Your task to perform on an android device: open app "Microsoft Excel" Image 0: 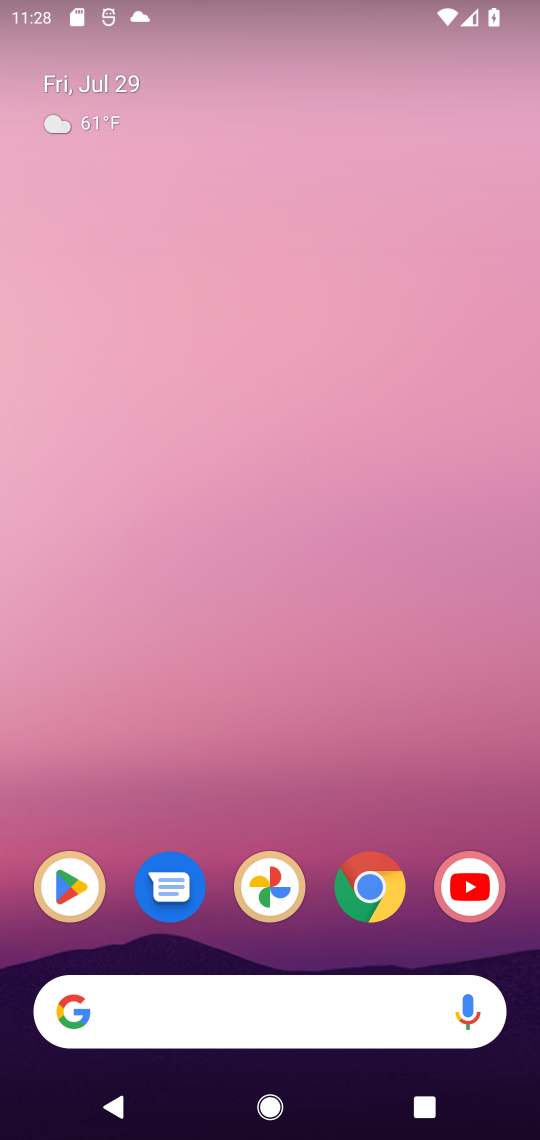
Step 0: press home button
Your task to perform on an android device: open app "Microsoft Excel" Image 1: 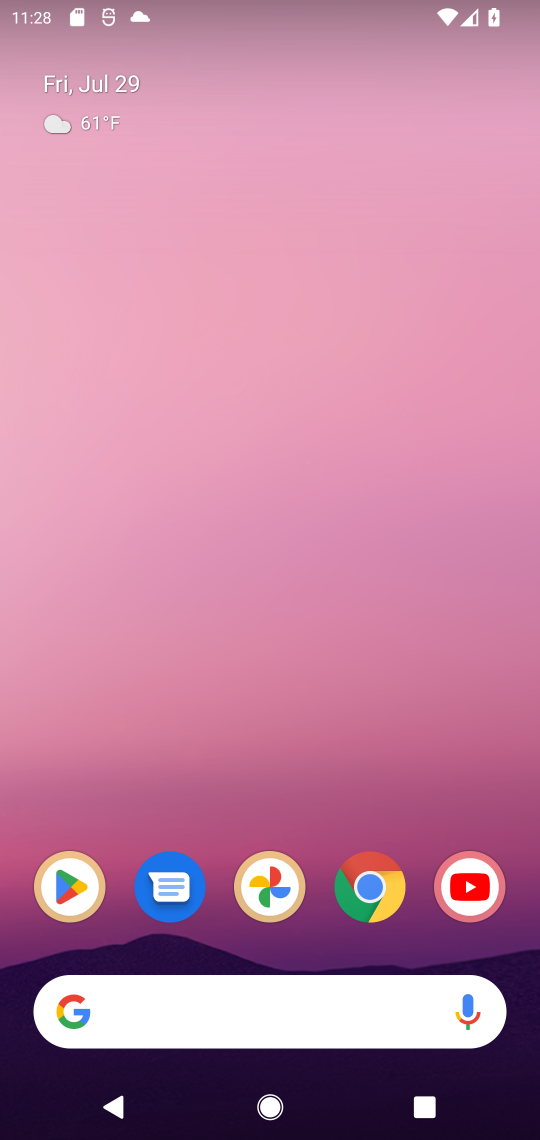
Step 1: drag from (218, 1029) to (297, 98)
Your task to perform on an android device: open app "Microsoft Excel" Image 2: 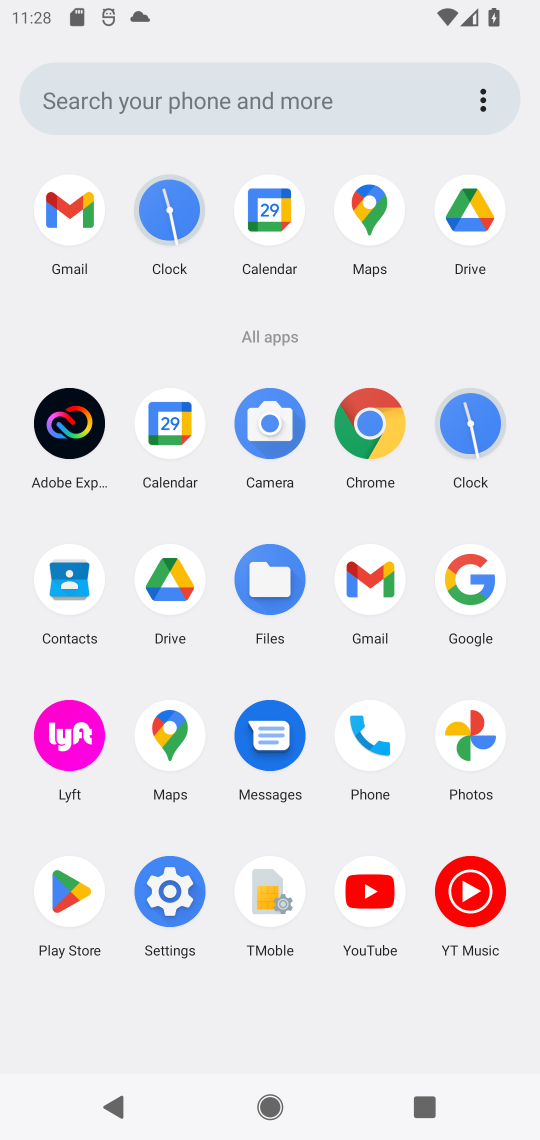
Step 2: click (70, 891)
Your task to perform on an android device: open app "Microsoft Excel" Image 3: 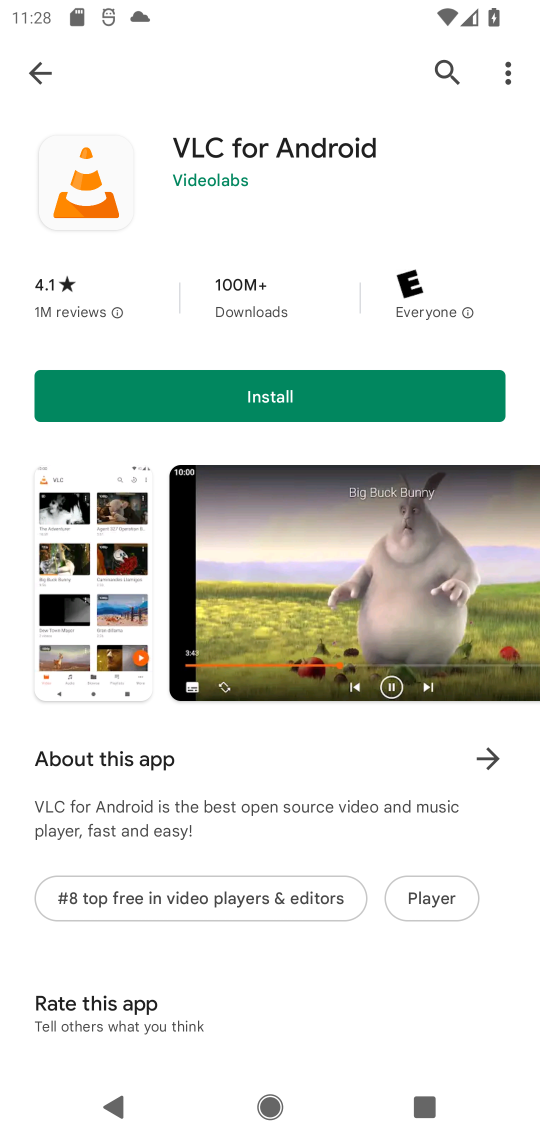
Step 3: click (449, 63)
Your task to perform on an android device: open app "Microsoft Excel" Image 4: 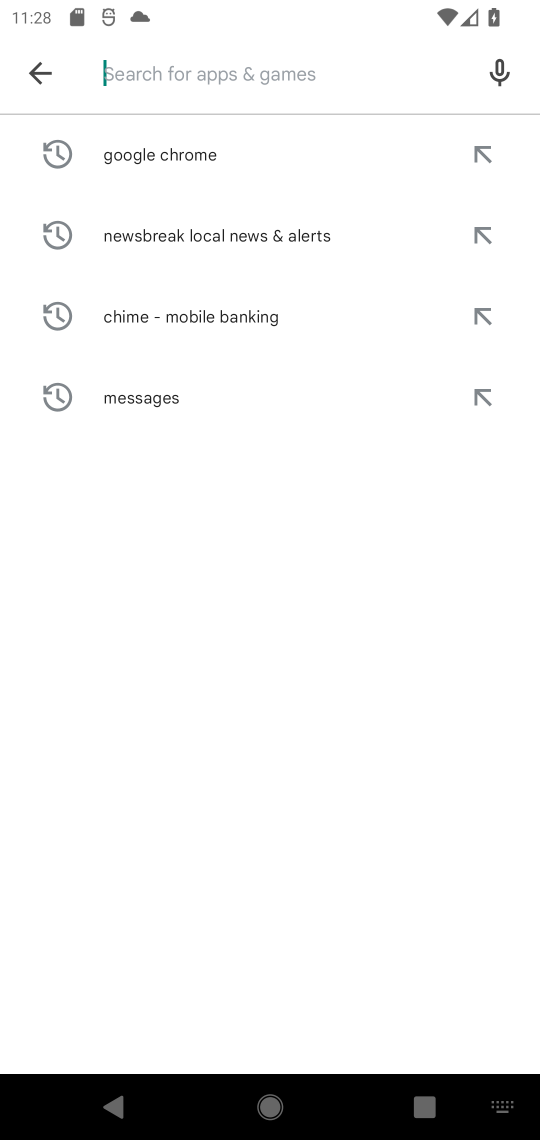
Step 4: type "Microsoft Excel"
Your task to perform on an android device: open app "Microsoft Excel" Image 5: 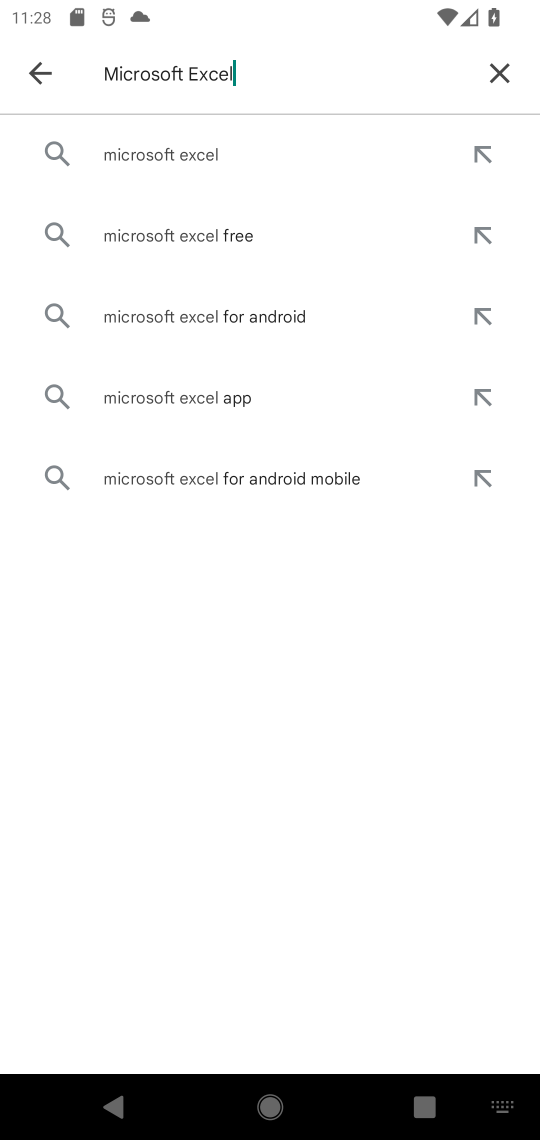
Step 5: click (122, 148)
Your task to perform on an android device: open app "Microsoft Excel" Image 6: 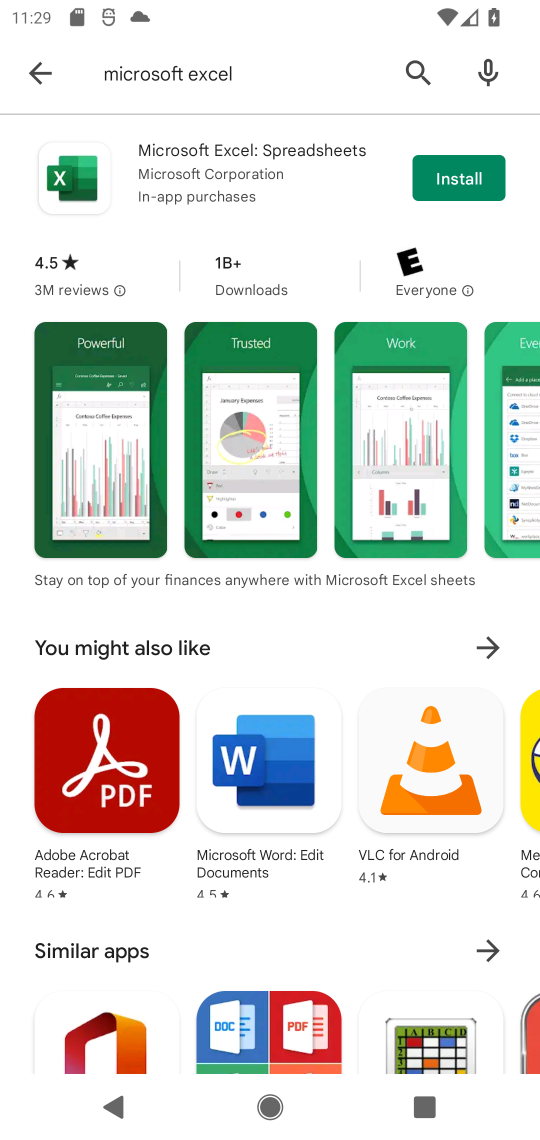
Step 6: task complete